Your task to perform on an android device: Show me popular games on the Play Store Image 0: 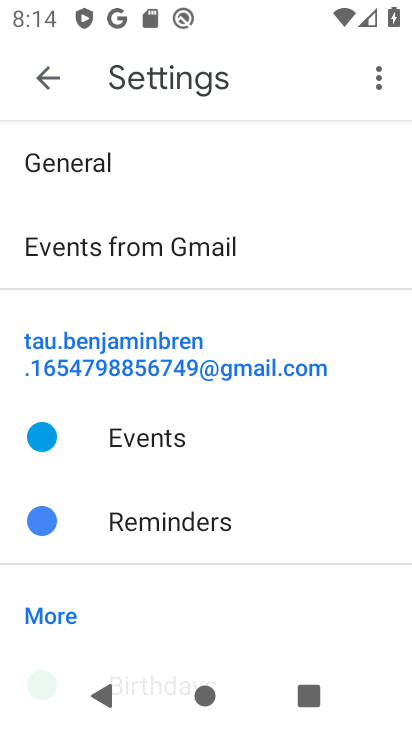
Step 0: press back button
Your task to perform on an android device: Show me popular games on the Play Store Image 1: 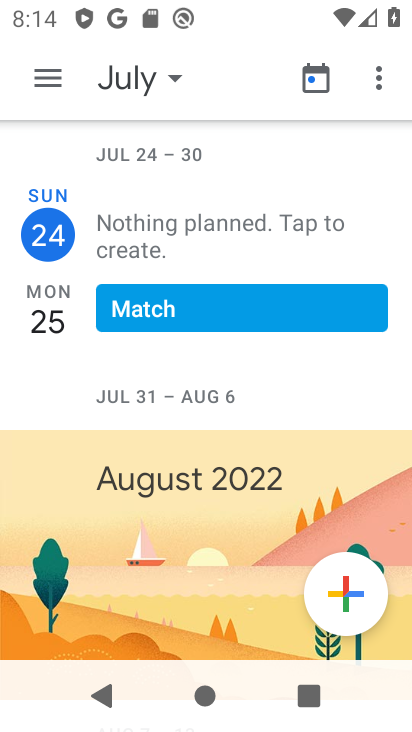
Step 1: press back button
Your task to perform on an android device: Show me popular games on the Play Store Image 2: 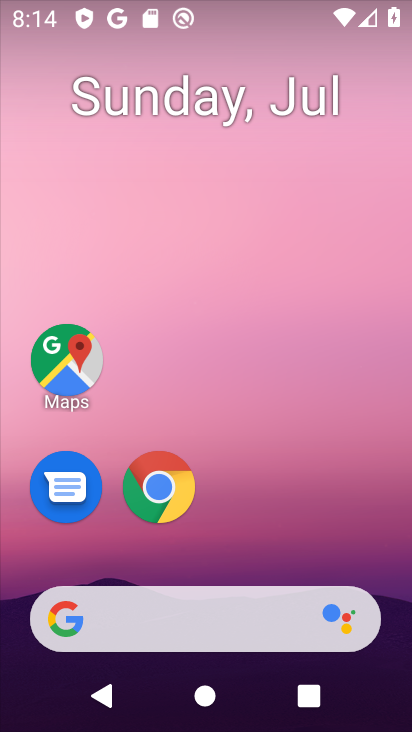
Step 2: drag from (237, 543) to (280, 7)
Your task to perform on an android device: Show me popular games on the Play Store Image 3: 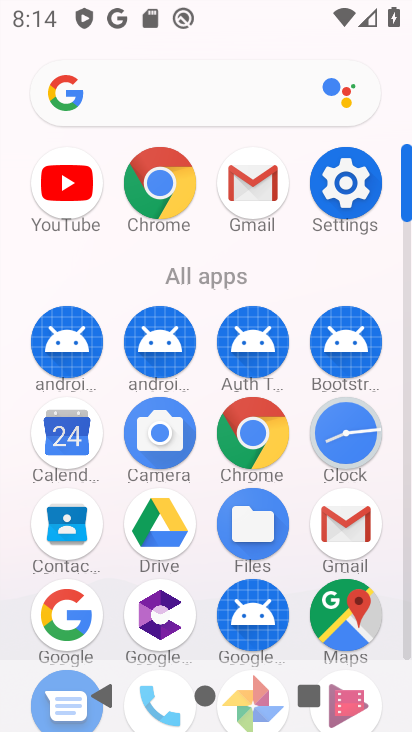
Step 3: drag from (201, 608) to (240, 80)
Your task to perform on an android device: Show me popular games on the Play Store Image 4: 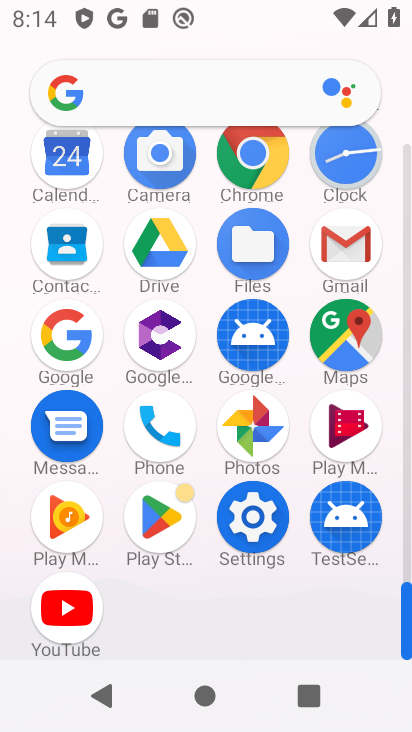
Step 4: click (159, 519)
Your task to perform on an android device: Show me popular games on the Play Store Image 5: 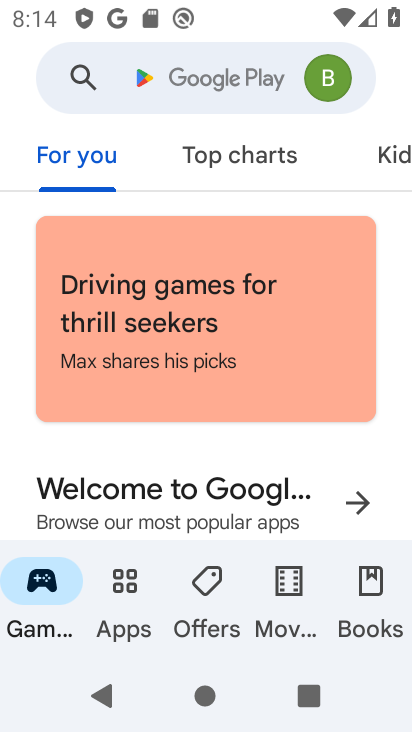
Step 5: drag from (164, 508) to (225, 34)
Your task to perform on an android device: Show me popular games on the Play Store Image 6: 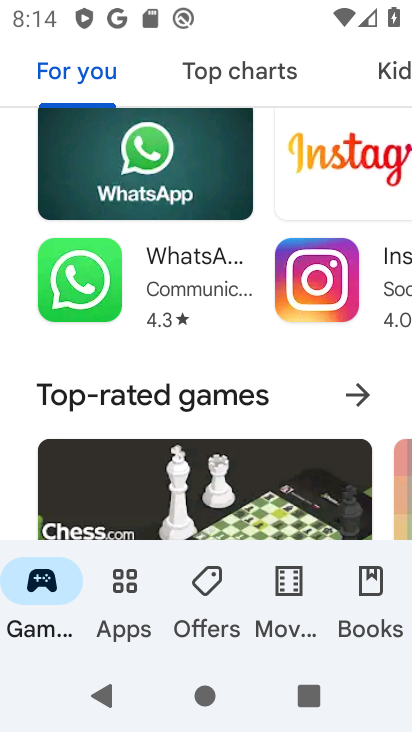
Step 6: drag from (259, 529) to (293, 103)
Your task to perform on an android device: Show me popular games on the Play Store Image 7: 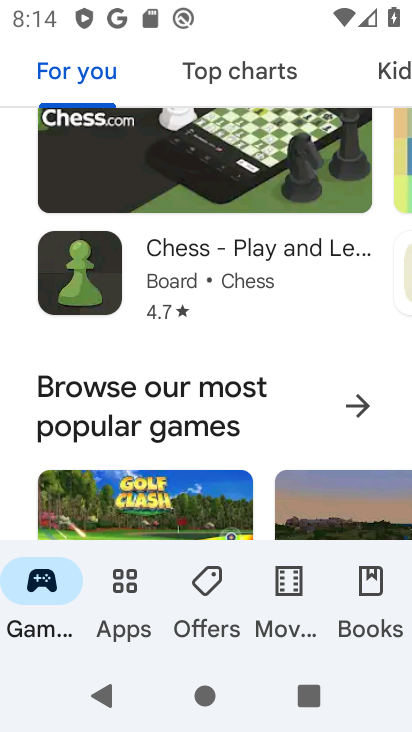
Step 7: click (368, 402)
Your task to perform on an android device: Show me popular games on the Play Store Image 8: 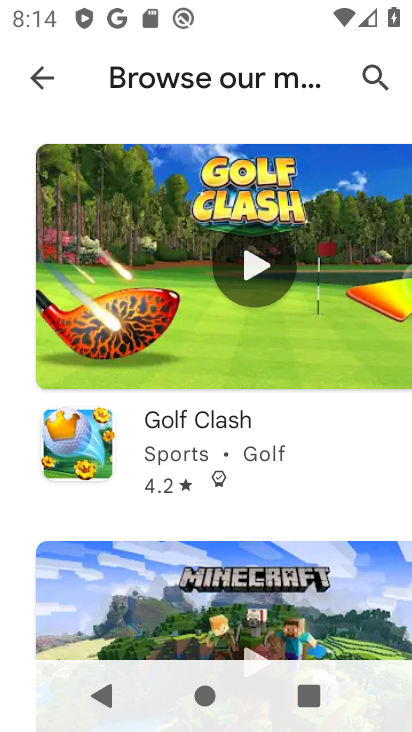
Step 8: task complete